Your task to perform on an android device: delete browsing data in the chrome app Image 0: 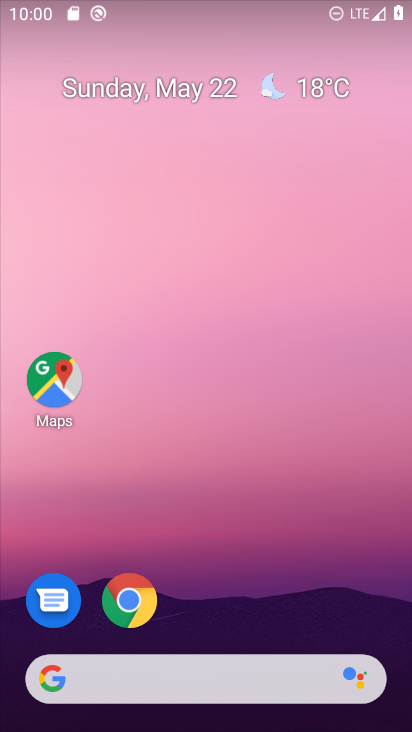
Step 0: drag from (322, 624) to (364, 120)
Your task to perform on an android device: delete browsing data in the chrome app Image 1: 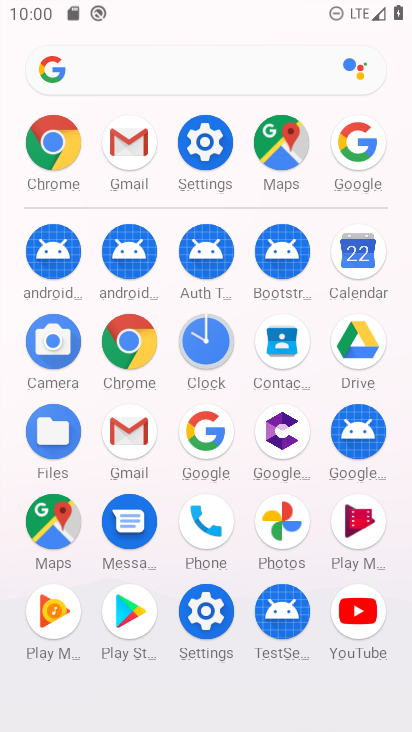
Step 1: click (128, 364)
Your task to perform on an android device: delete browsing data in the chrome app Image 2: 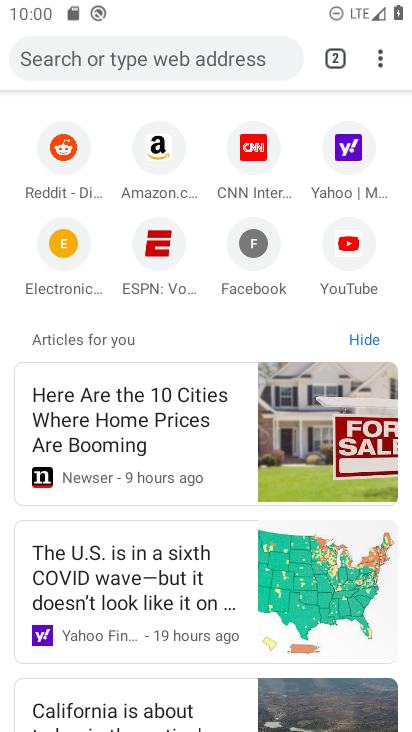
Step 2: click (385, 44)
Your task to perform on an android device: delete browsing data in the chrome app Image 3: 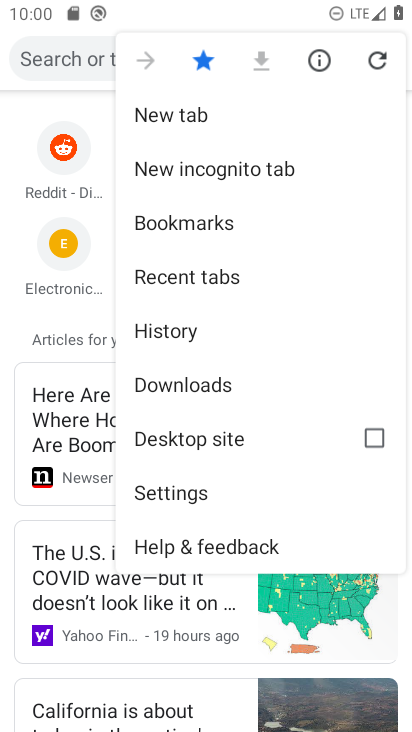
Step 3: click (191, 333)
Your task to perform on an android device: delete browsing data in the chrome app Image 4: 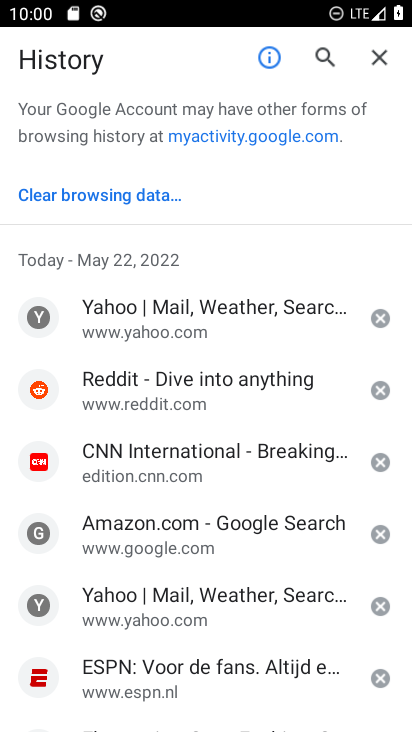
Step 4: click (113, 190)
Your task to perform on an android device: delete browsing data in the chrome app Image 5: 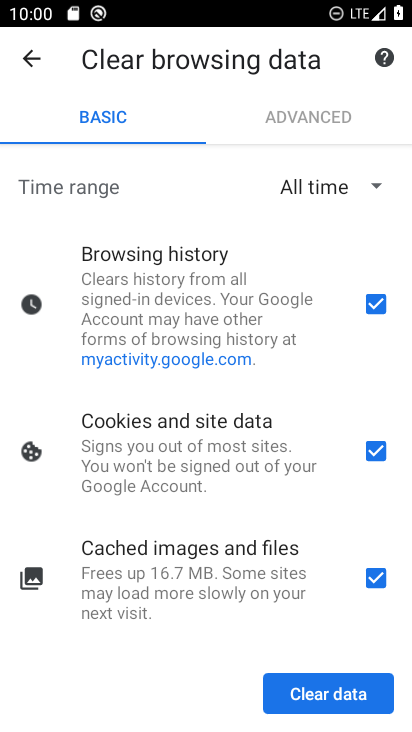
Step 5: click (290, 688)
Your task to perform on an android device: delete browsing data in the chrome app Image 6: 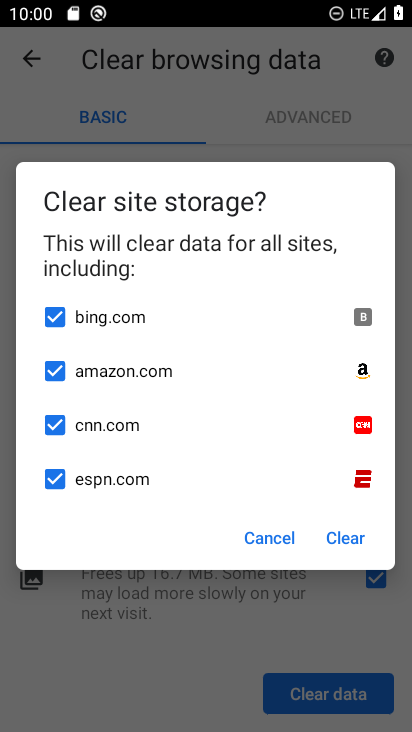
Step 6: click (355, 530)
Your task to perform on an android device: delete browsing data in the chrome app Image 7: 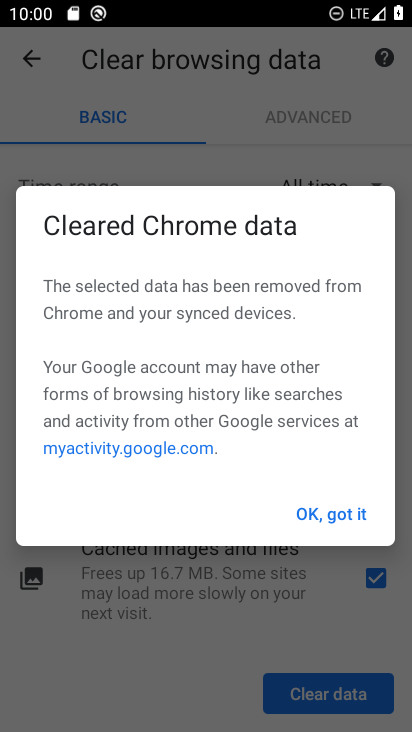
Step 7: click (349, 514)
Your task to perform on an android device: delete browsing data in the chrome app Image 8: 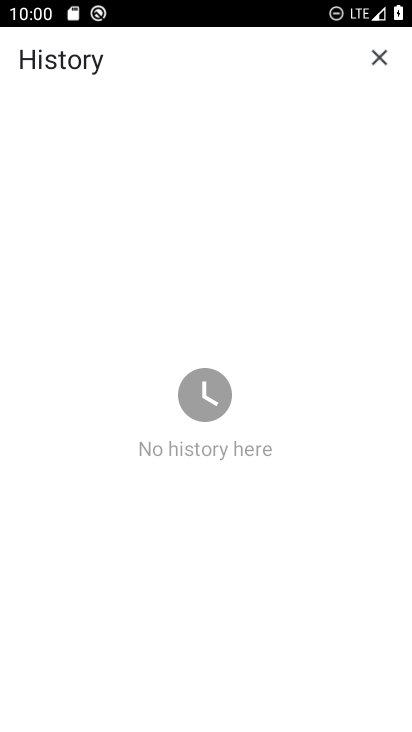
Step 8: task complete